Your task to perform on an android device: turn on airplane mode Image 0: 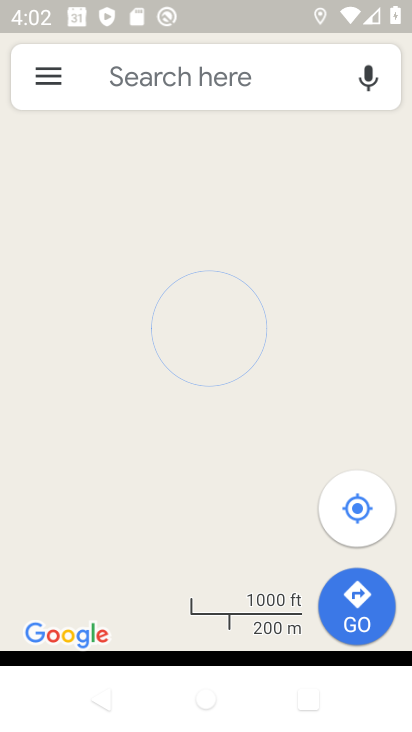
Step 0: press back button
Your task to perform on an android device: turn on airplane mode Image 1: 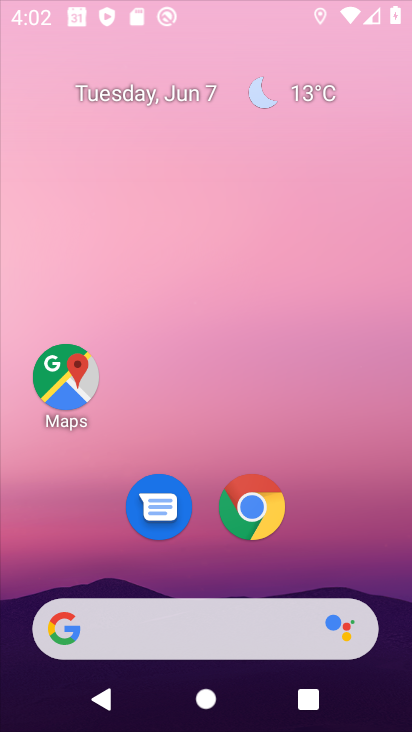
Step 1: press home button
Your task to perform on an android device: turn on airplane mode Image 2: 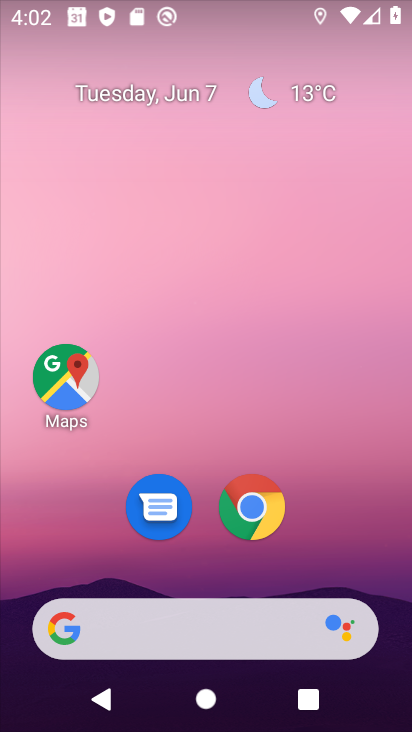
Step 2: click (228, 11)
Your task to perform on an android device: turn on airplane mode Image 3: 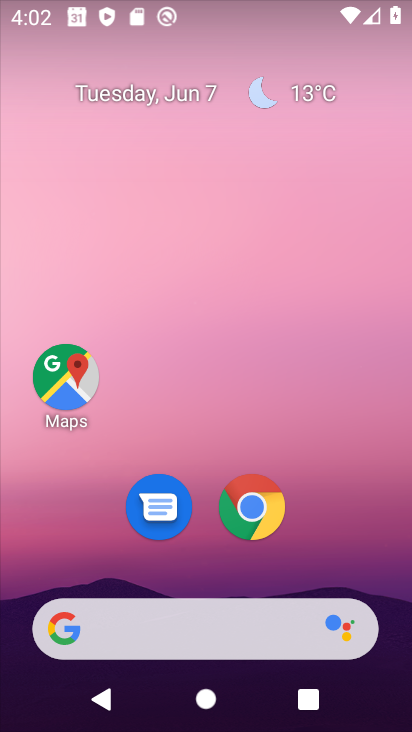
Step 3: drag from (356, 547) to (183, 34)
Your task to perform on an android device: turn on airplane mode Image 4: 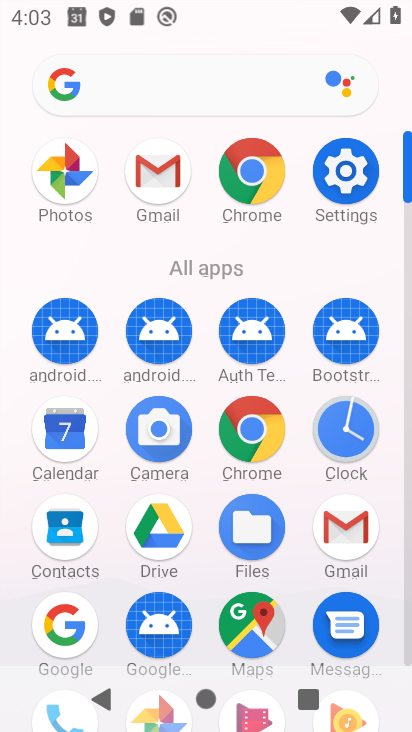
Step 4: click (340, 169)
Your task to perform on an android device: turn on airplane mode Image 5: 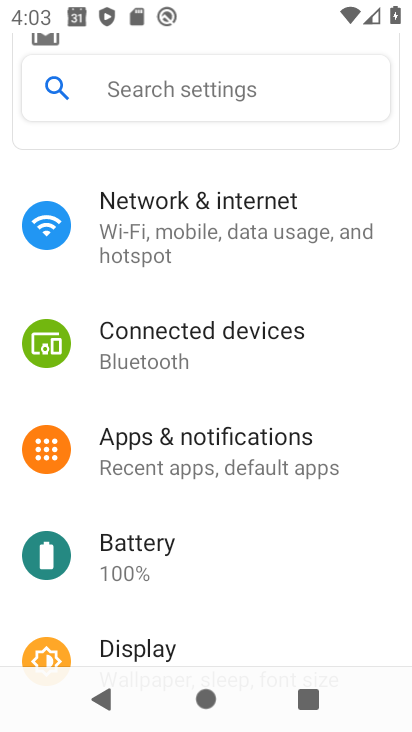
Step 5: drag from (340, 193) to (340, 535)
Your task to perform on an android device: turn on airplane mode Image 6: 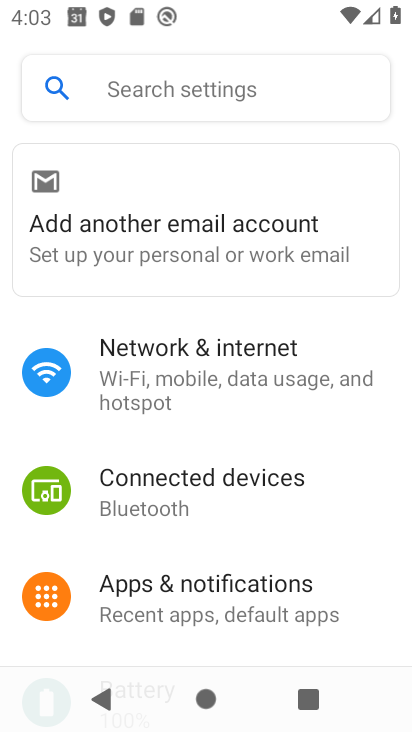
Step 6: drag from (341, 578) to (353, 268)
Your task to perform on an android device: turn on airplane mode Image 7: 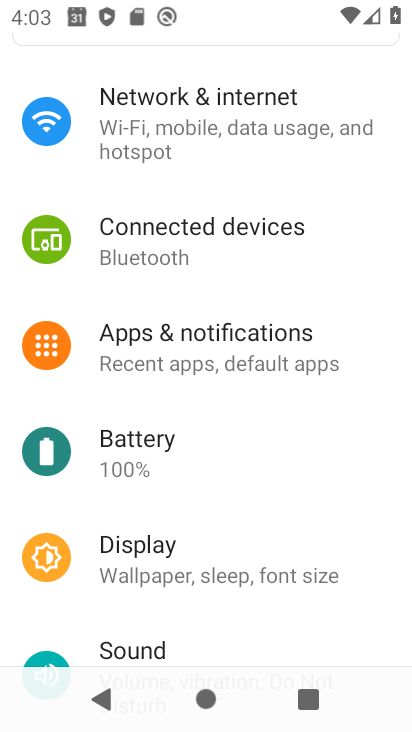
Step 7: drag from (303, 579) to (319, 220)
Your task to perform on an android device: turn on airplane mode Image 8: 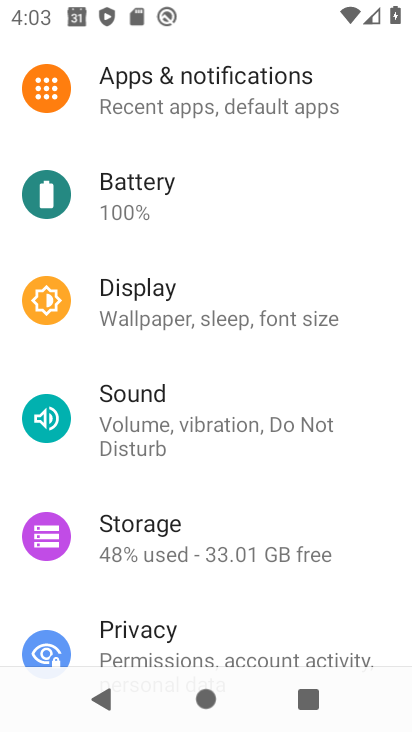
Step 8: drag from (322, 201) to (295, 547)
Your task to perform on an android device: turn on airplane mode Image 9: 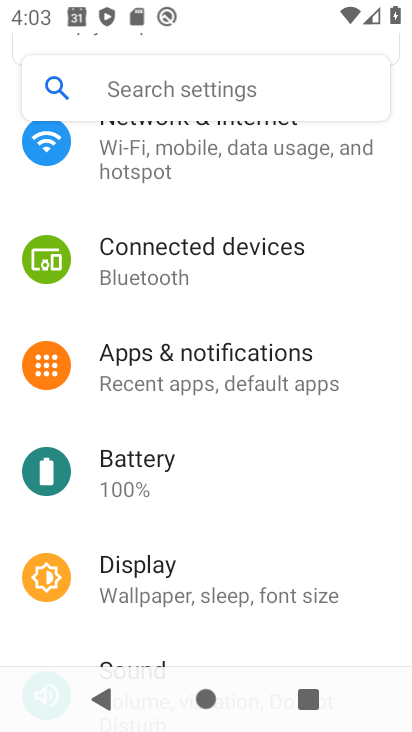
Step 9: drag from (277, 234) to (277, 545)
Your task to perform on an android device: turn on airplane mode Image 10: 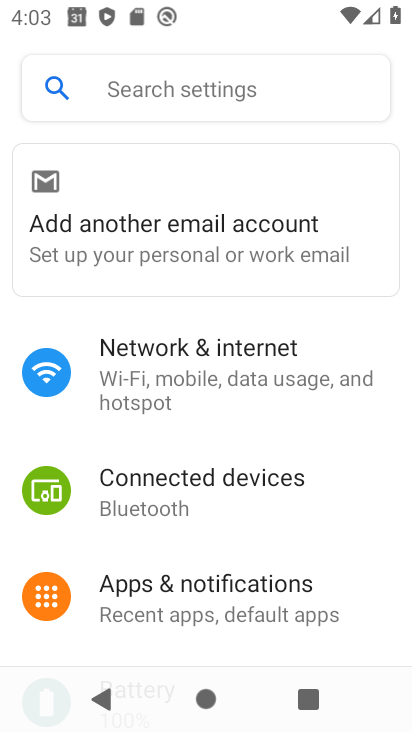
Step 10: click (207, 389)
Your task to perform on an android device: turn on airplane mode Image 11: 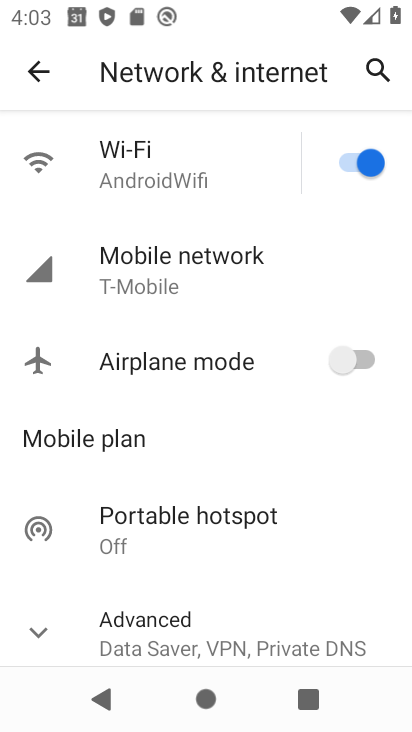
Step 11: click (351, 350)
Your task to perform on an android device: turn on airplane mode Image 12: 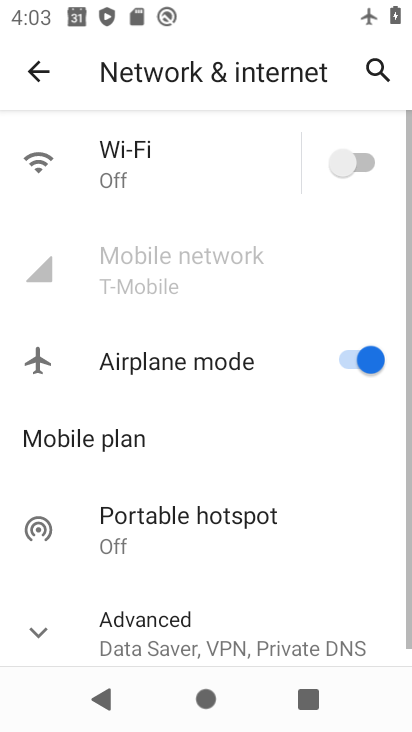
Step 12: click (49, 618)
Your task to perform on an android device: turn on airplane mode Image 13: 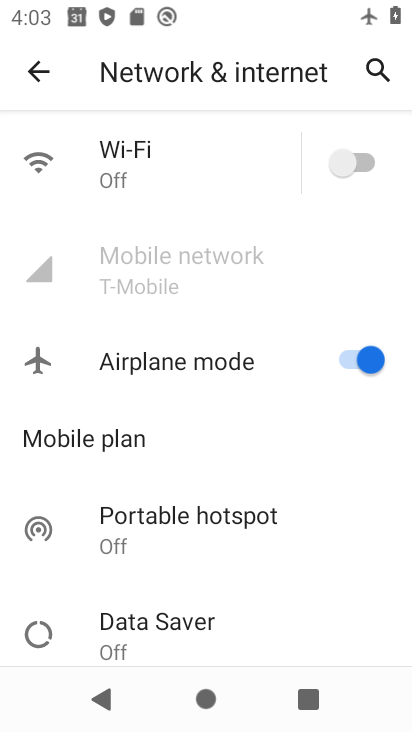
Step 13: task complete